Your task to perform on an android device: Open Android settings Image 0: 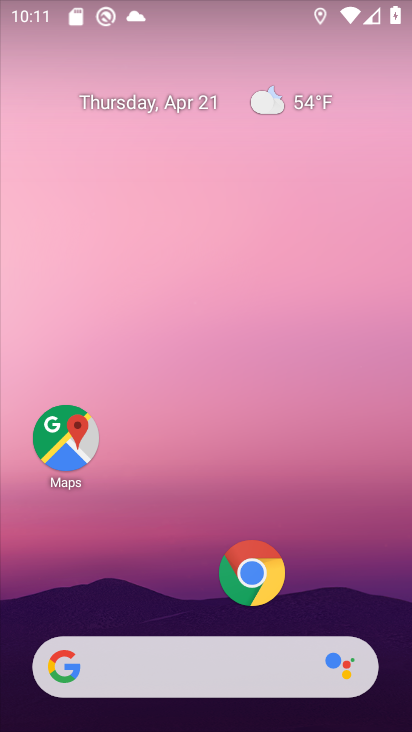
Step 0: drag from (197, 619) to (238, 112)
Your task to perform on an android device: Open Android settings Image 1: 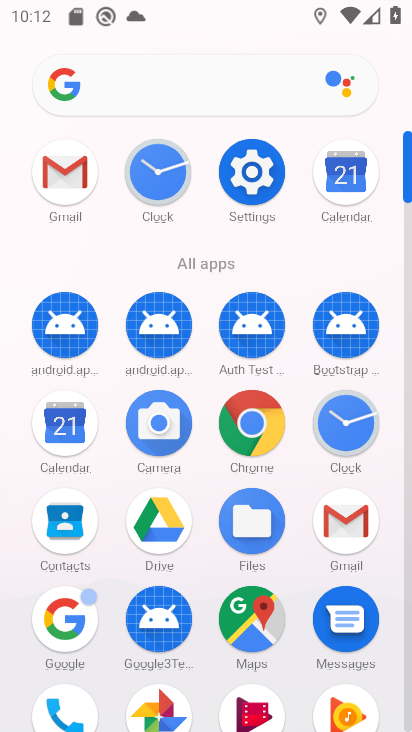
Step 1: click (242, 167)
Your task to perform on an android device: Open Android settings Image 2: 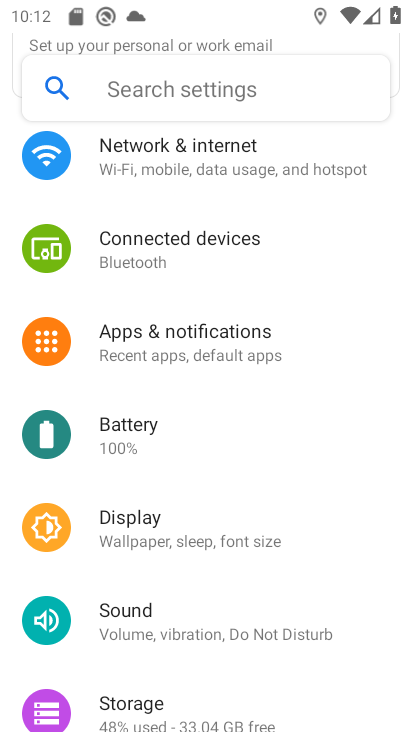
Step 2: task complete